Your task to perform on an android device: Open the stopwatch Image 0: 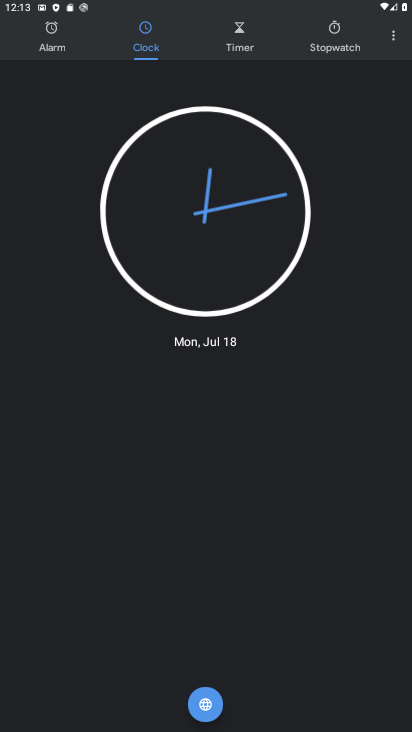
Step 0: click (343, 38)
Your task to perform on an android device: Open the stopwatch Image 1: 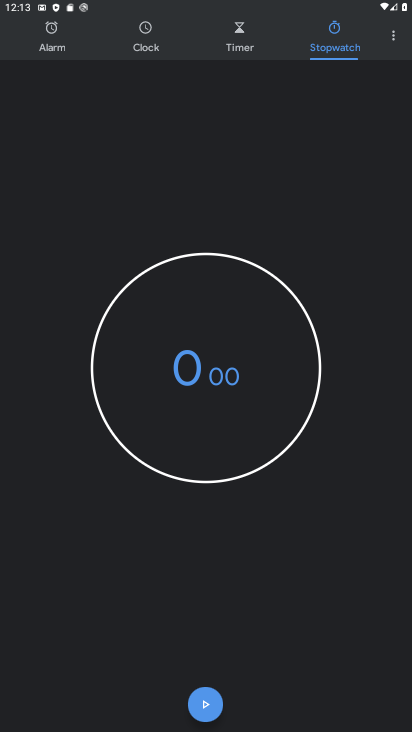
Step 1: click (214, 707)
Your task to perform on an android device: Open the stopwatch Image 2: 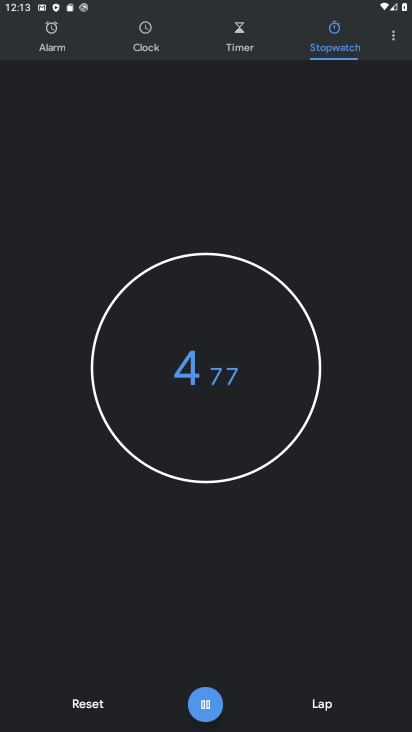
Step 2: task complete